Your task to perform on an android device: Turn off the flashlight Image 0: 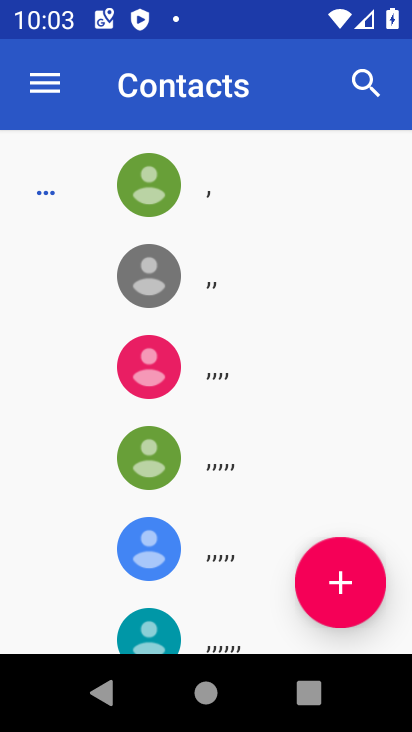
Step 0: press home button
Your task to perform on an android device: Turn off the flashlight Image 1: 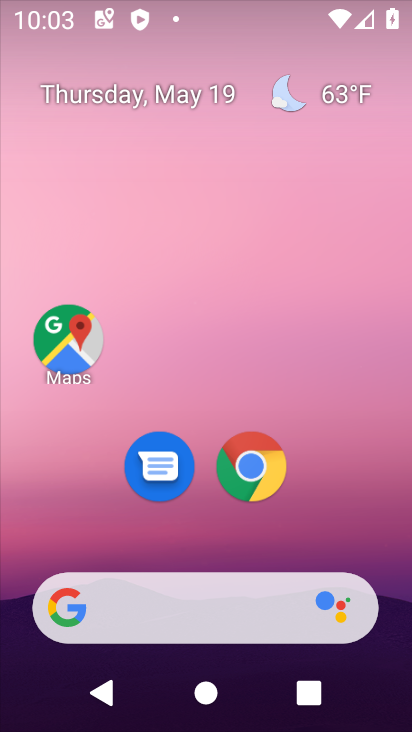
Step 1: drag from (386, 641) to (258, 61)
Your task to perform on an android device: Turn off the flashlight Image 2: 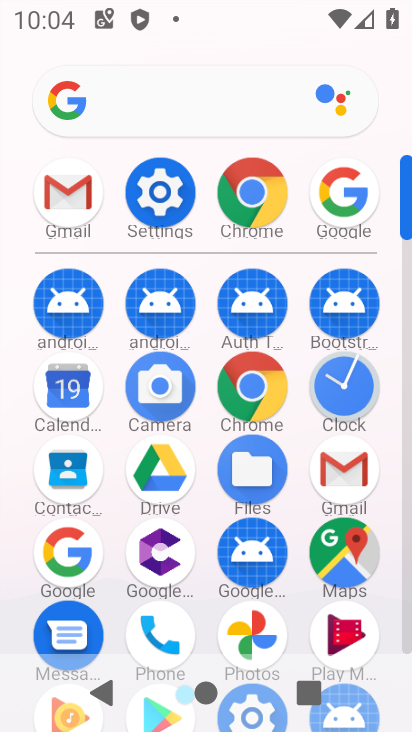
Step 2: click (144, 177)
Your task to perform on an android device: Turn off the flashlight Image 3: 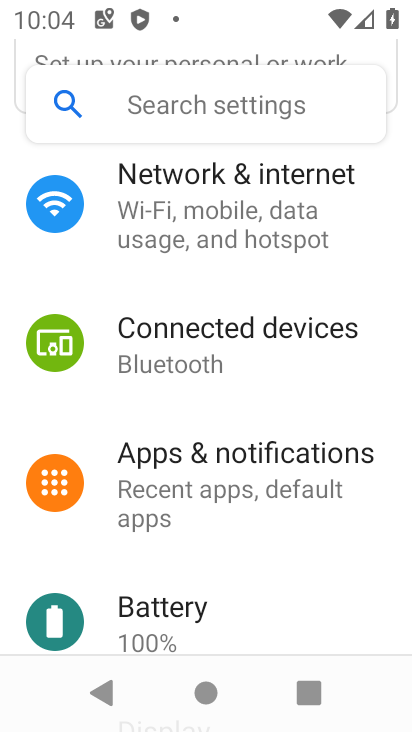
Step 3: task complete